Your task to perform on an android device: turn off notifications settings in the gmail app Image 0: 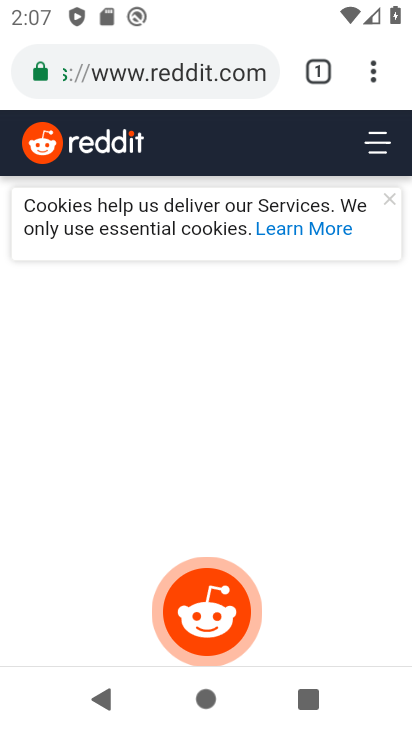
Step 0: press home button
Your task to perform on an android device: turn off notifications settings in the gmail app Image 1: 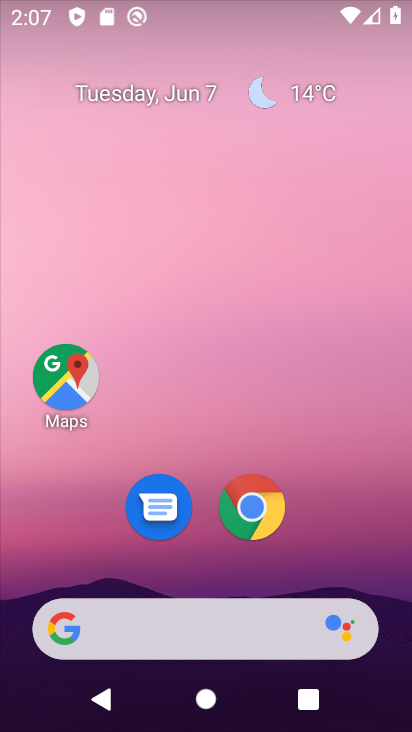
Step 1: drag from (364, 512) to (304, 67)
Your task to perform on an android device: turn off notifications settings in the gmail app Image 2: 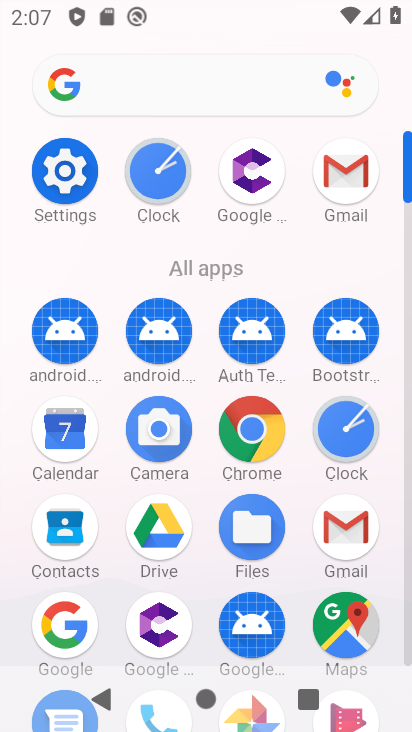
Step 2: click (335, 176)
Your task to perform on an android device: turn off notifications settings in the gmail app Image 3: 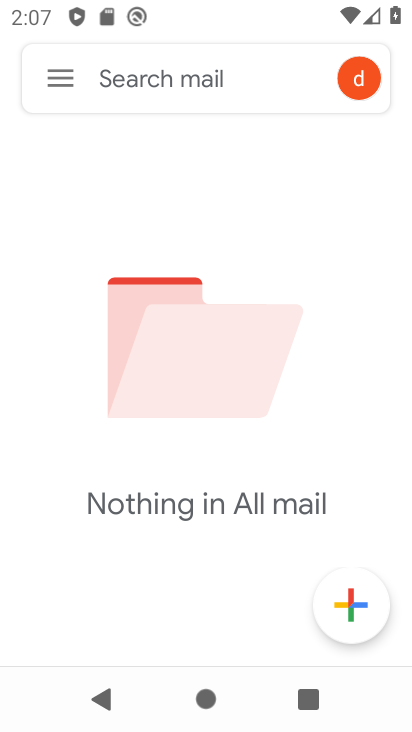
Step 3: click (50, 70)
Your task to perform on an android device: turn off notifications settings in the gmail app Image 4: 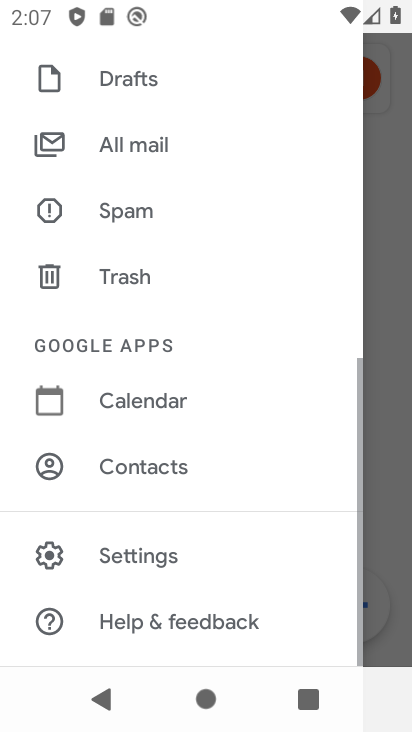
Step 4: click (156, 550)
Your task to perform on an android device: turn off notifications settings in the gmail app Image 5: 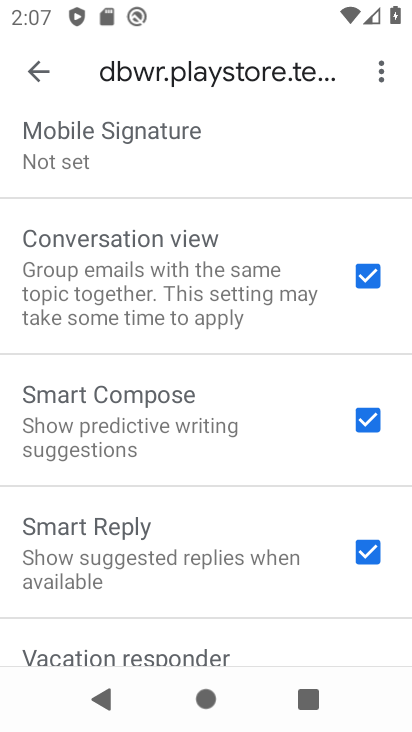
Step 5: drag from (185, 165) to (170, 550)
Your task to perform on an android device: turn off notifications settings in the gmail app Image 6: 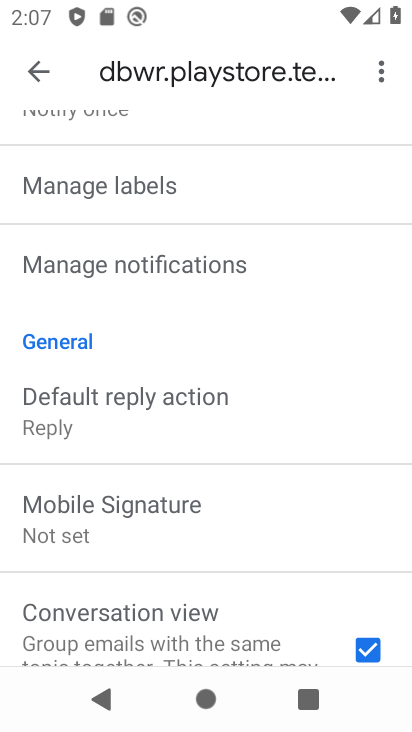
Step 6: click (160, 262)
Your task to perform on an android device: turn off notifications settings in the gmail app Image 7: 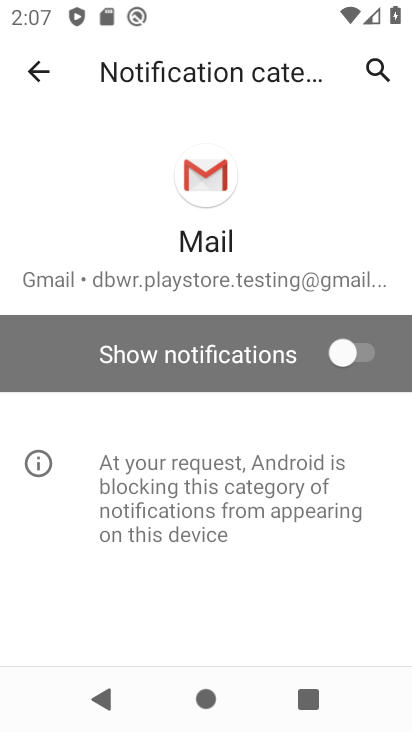
Step 7: task complete